Your task to perform on an android device: Open the calendar and show me this week's events Image 0: 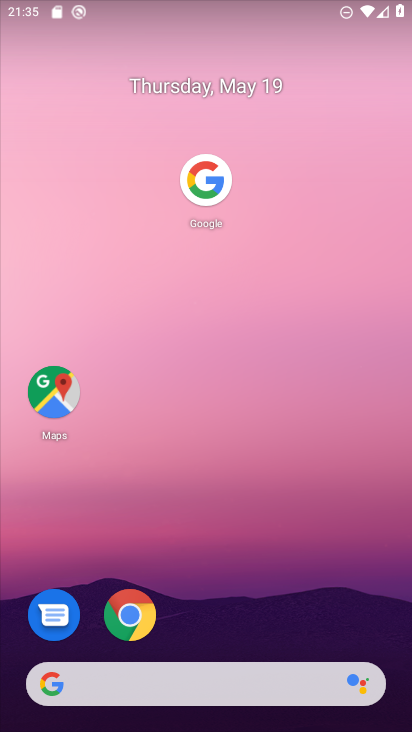
Step 0: click (135, 615)
Your task to perform on an android device: Open the calendar and show me this week's events Image 1: 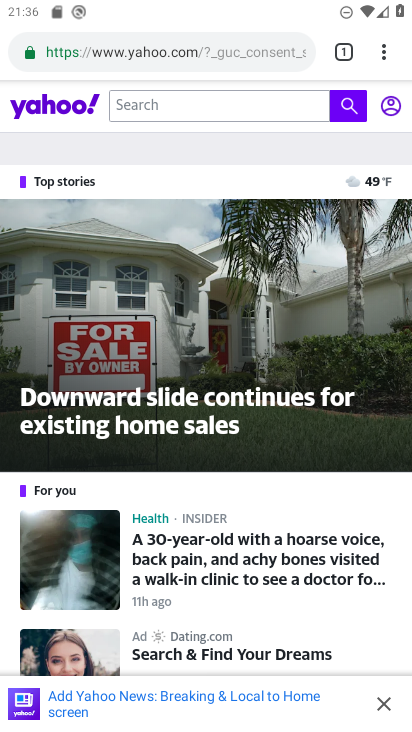
Step 1: task complete